Your task to perform on an android device: Open internet settings Image 0: 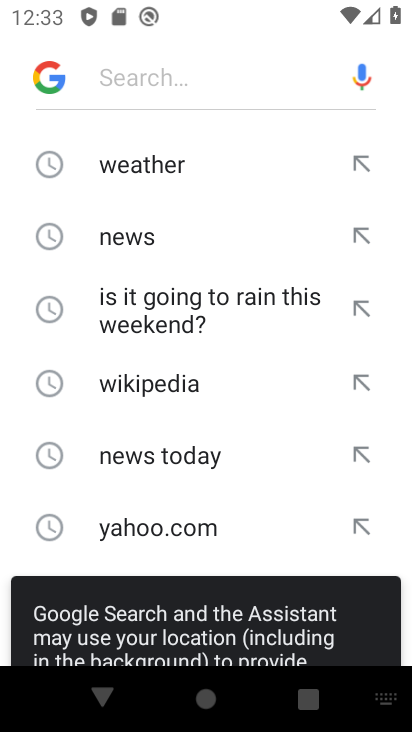
Step 0: press home button
Your task to perform on an android device: Open internet settings Image 1: 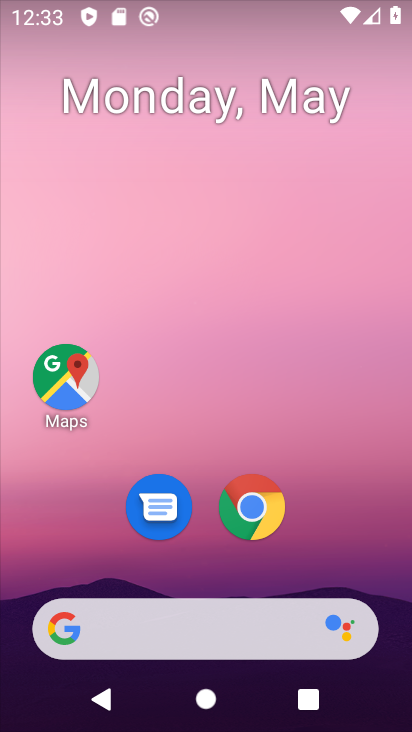
Step 1: drag from (228, 722) to (226, 1)
Your task to perform on an android device: Open internet settings Image 2: 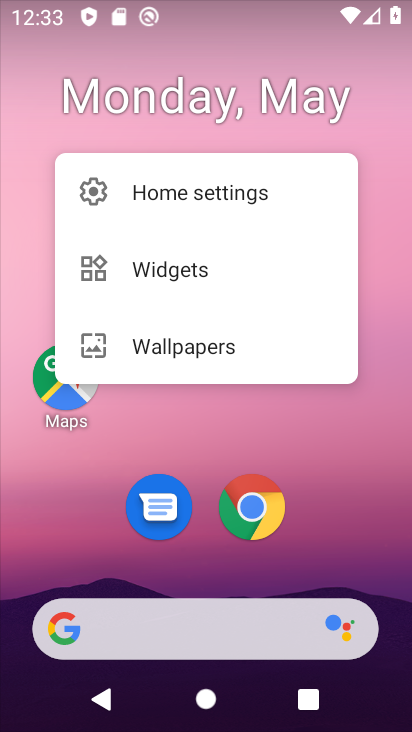
Step 2: click (184, 407)
Your task to perform on an android device: Open internet settings Image 3: 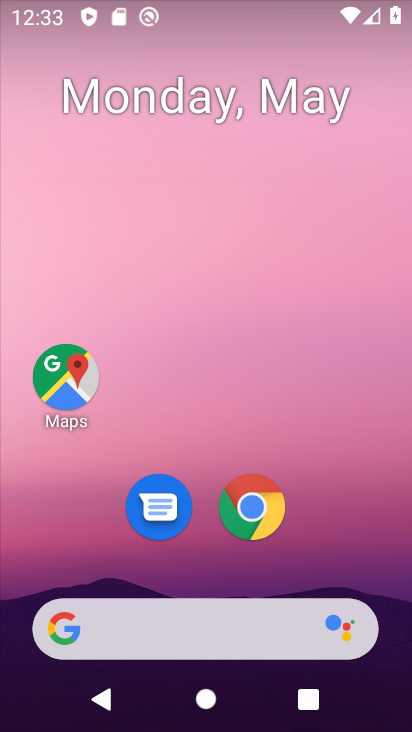
Step 3: drag from (231, 725) to (221, 3)
Your task to perform on an android device: Open internet settings Image 4: 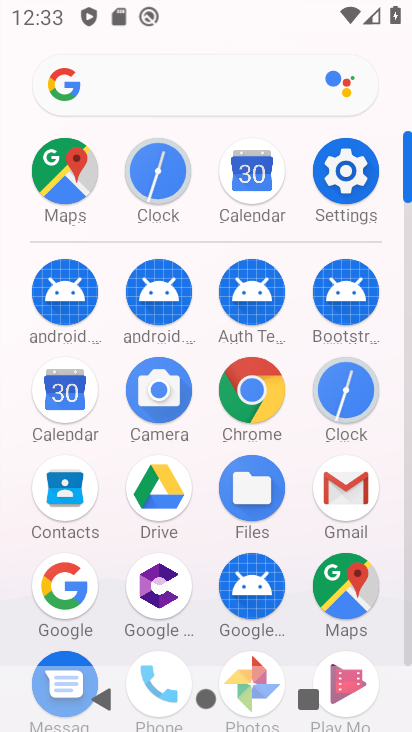
Step 4: click (344, 176)
Your task to perform on an android device: Open internet settings Image 5: 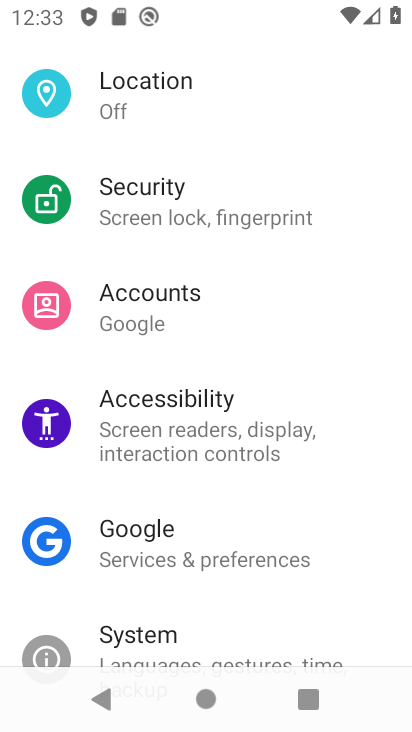
Step 5: drag from (235, 144) to (316, 716)
Your task to perform on an android device: Open internet settings Image 6: 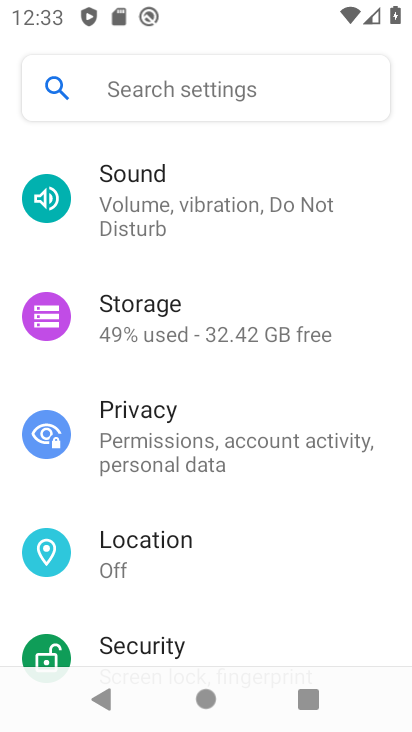
Step 6: drag from (208, 143) to (256, 730)
Your task to perform on an android device: Open internet settings Image 7: 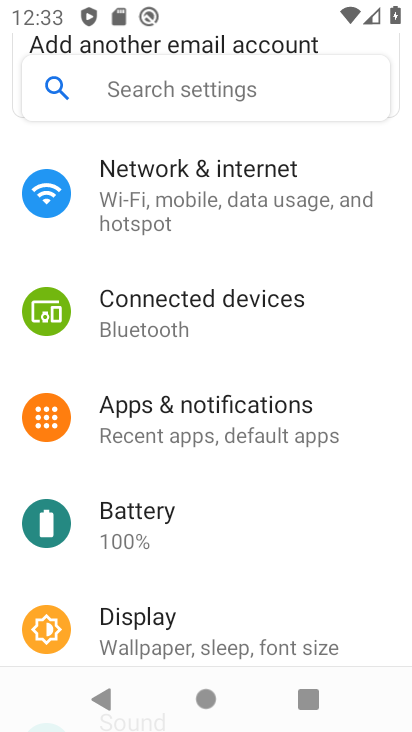
Step 7: click (197, 174)
Your task to perform on an android device: Open internet settings Image 8: 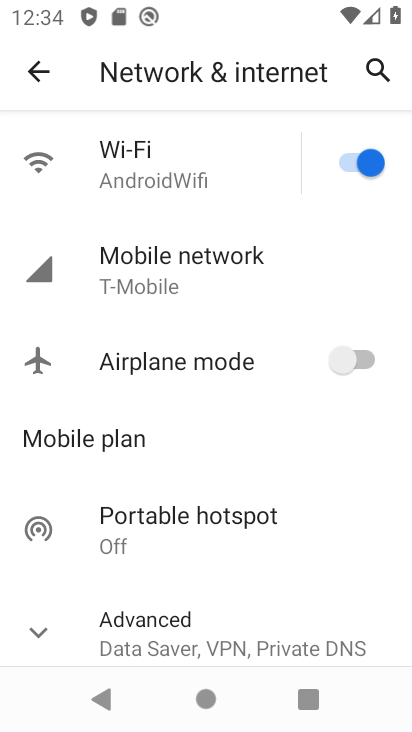
Step 8: task complete